Your task to perform on an android device: Go to Android settings Image 0: 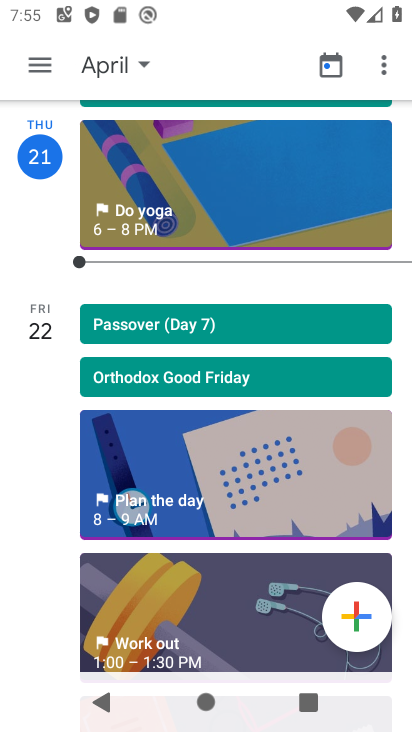
Step 0: drag from (243, 577) to (291, 284)
Your task to perform on an android device: Go to Android settings Image 1: 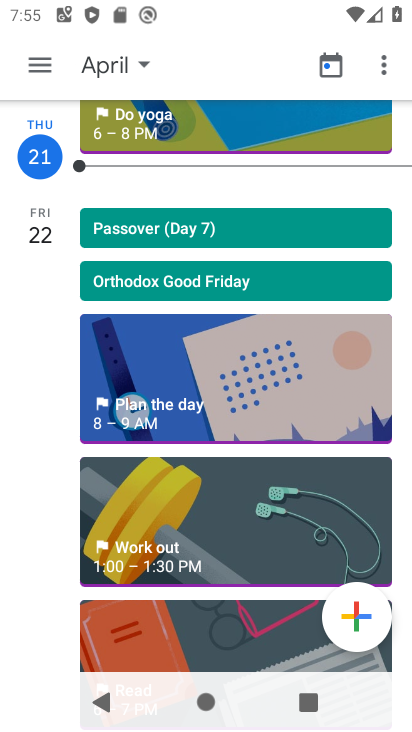
Step 1: press home button
Your task to perform on an android device: Go to Android settings Image 2: 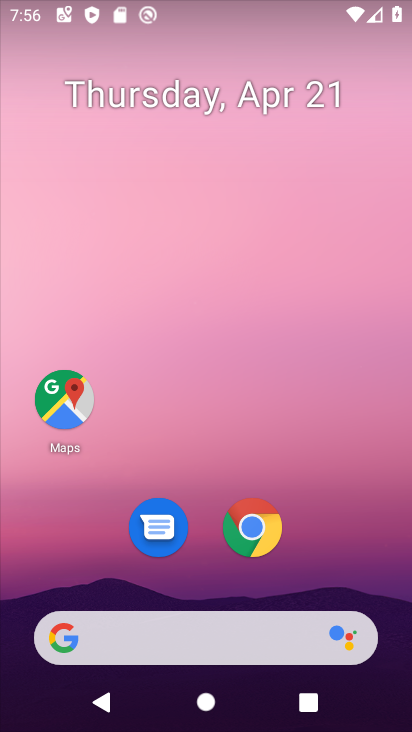
Step 2: drag from (227, 636) to (244, 291)
Your task to perform on an android device: Go to Android settings Image 3: 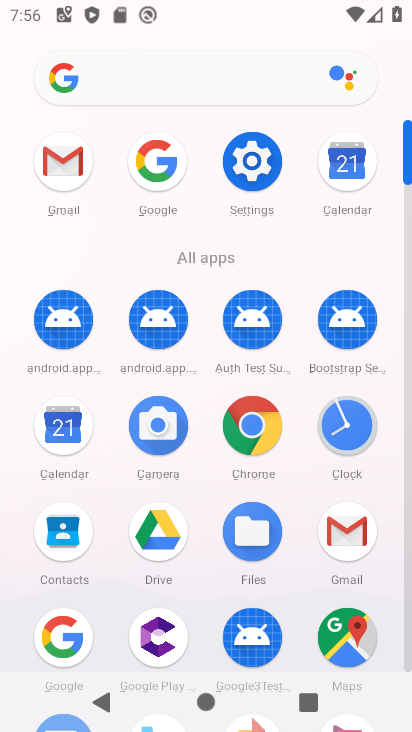
Step 3: click (264, 175)
Your task to perform on an android device: Go to Android settings Image 4: 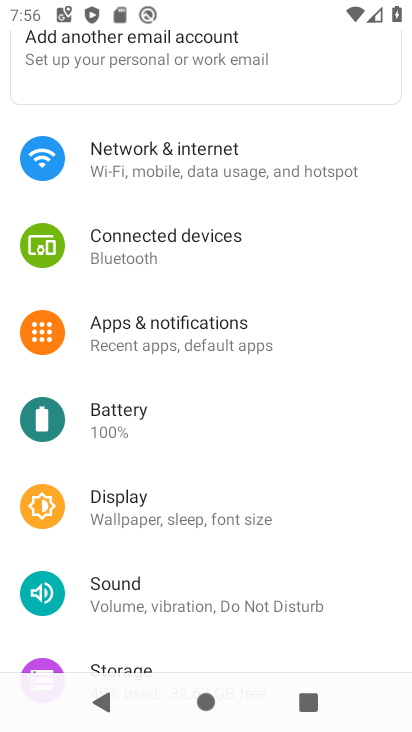
Step 4: drag from (192, 483) to (320, 251)
Your task to perform on an android device: Go to Android settings Image 5: 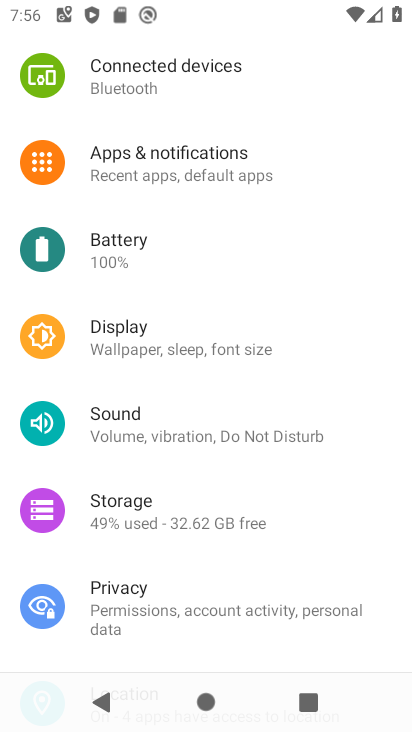
Step 5: drag from (273, 484) to (318, 329)
Your task to perform on an android device: Go to Android settings Image 6: 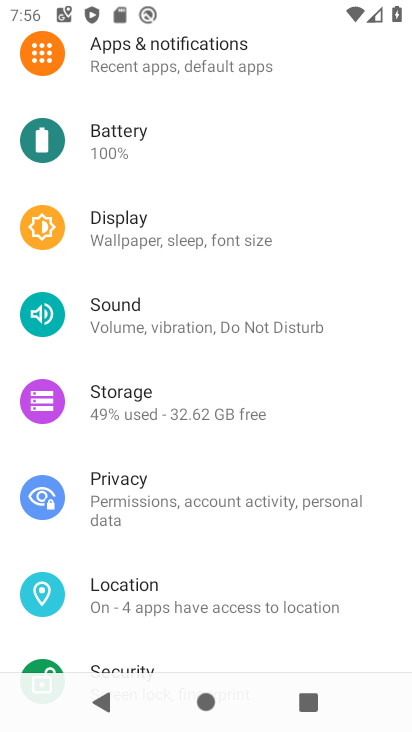
Step 6: drag from (269, 493) to (341, 201)
Your task to perform on an android device: Go to Android settings Image 7: 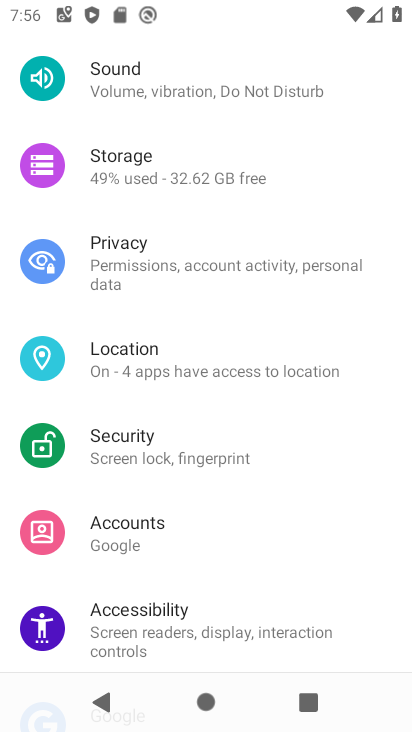
Step 7: drag from (245, 502) to (359, 156)
Your task to perform on an android device: Go to Android settings Image 8: 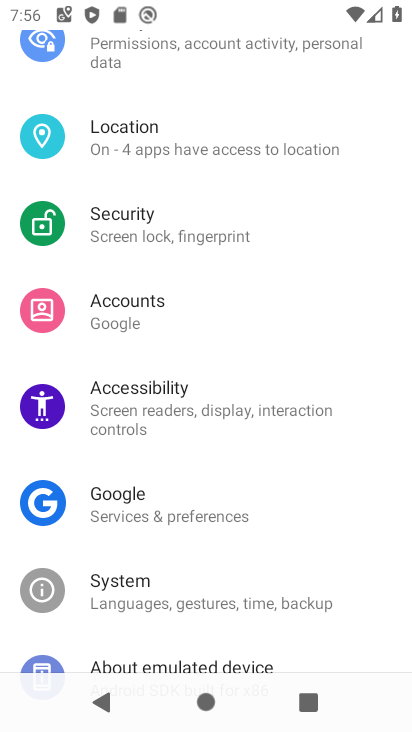
Step 8: drag from (235, 543) to (261, 243)
Your task to perform on an android device: Go to Android settings Image 9: 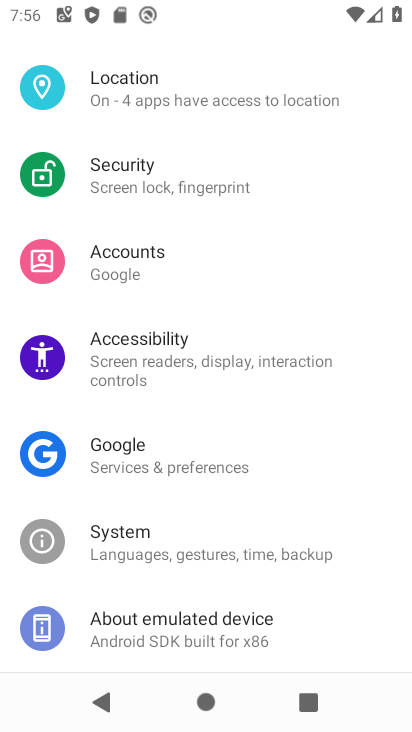
Step 9: click (211, 634)
Your task to perform on an android device: Go to Android settings Image 10: 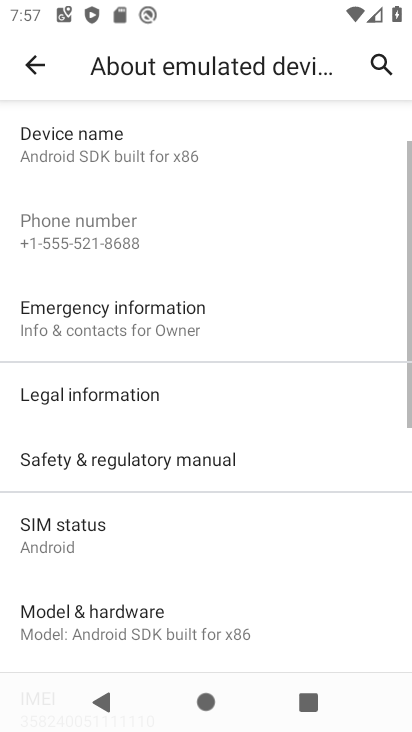
Step 10: task complete